Your task to perform on an android device: turn on translation in the chrome app Image 0: 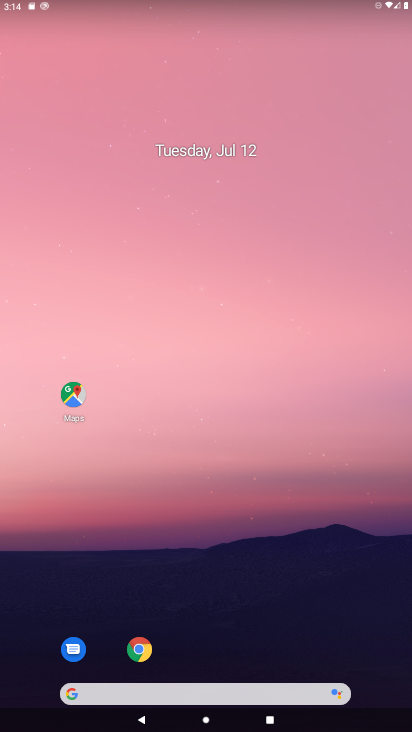
Step 0: click (135, 652)
Your task to perform on an android device: turn on translation in the chrome app Image 1: 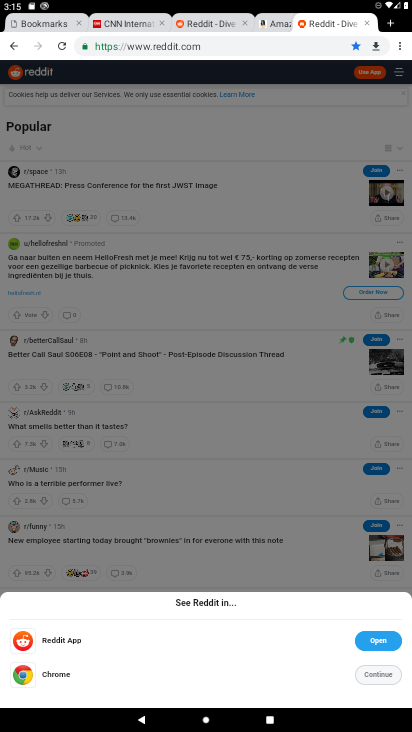
Step 1: click (403, 41)
Your task to perform on an android device: turn on translation in the chrome app Image 2: 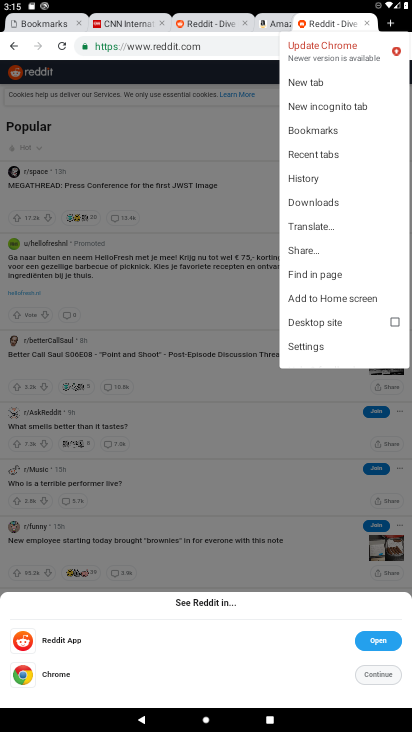
Step 2: click (327, 343)
Your task to perform on an android device: turn on translation in the chrome app Image 3: 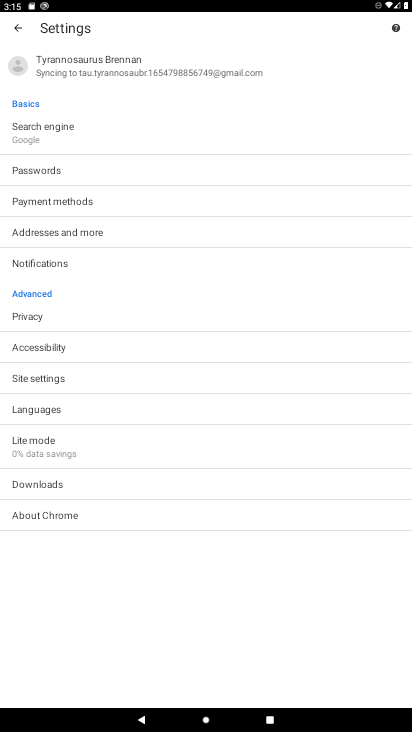
Step 3: click (100, 401)
Your task to perform on an android device: turn on translation in the chrome app Image 4: 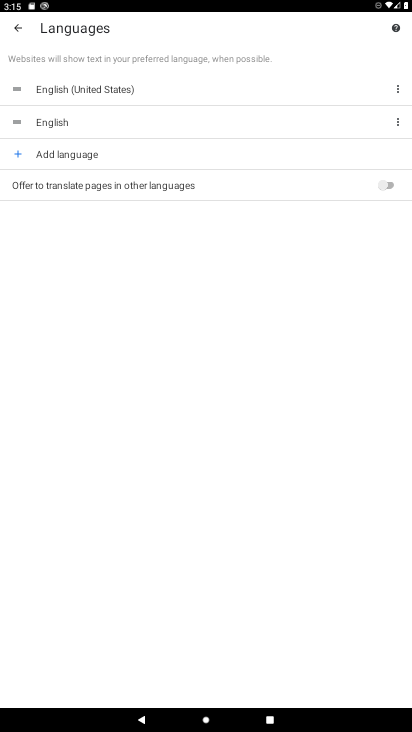
Step 4: click (391, 193)
Your task to perform on an android device: turn on translation in the chrome app Image 5: 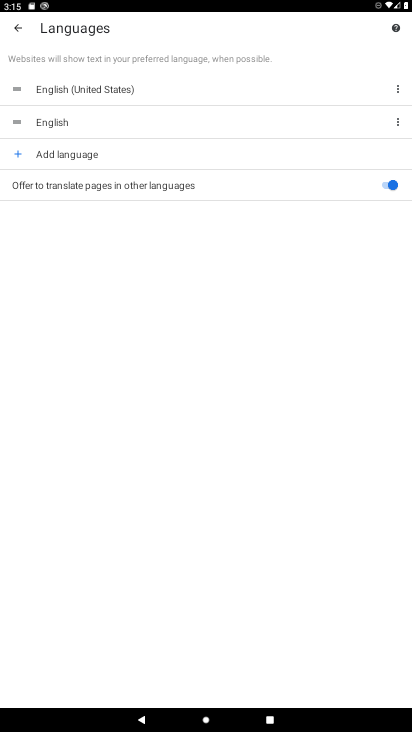
Step 5: task complete